Your task to perform on an android device: uninstall "Expedia: Hotels, Flights & Car" Image 0: 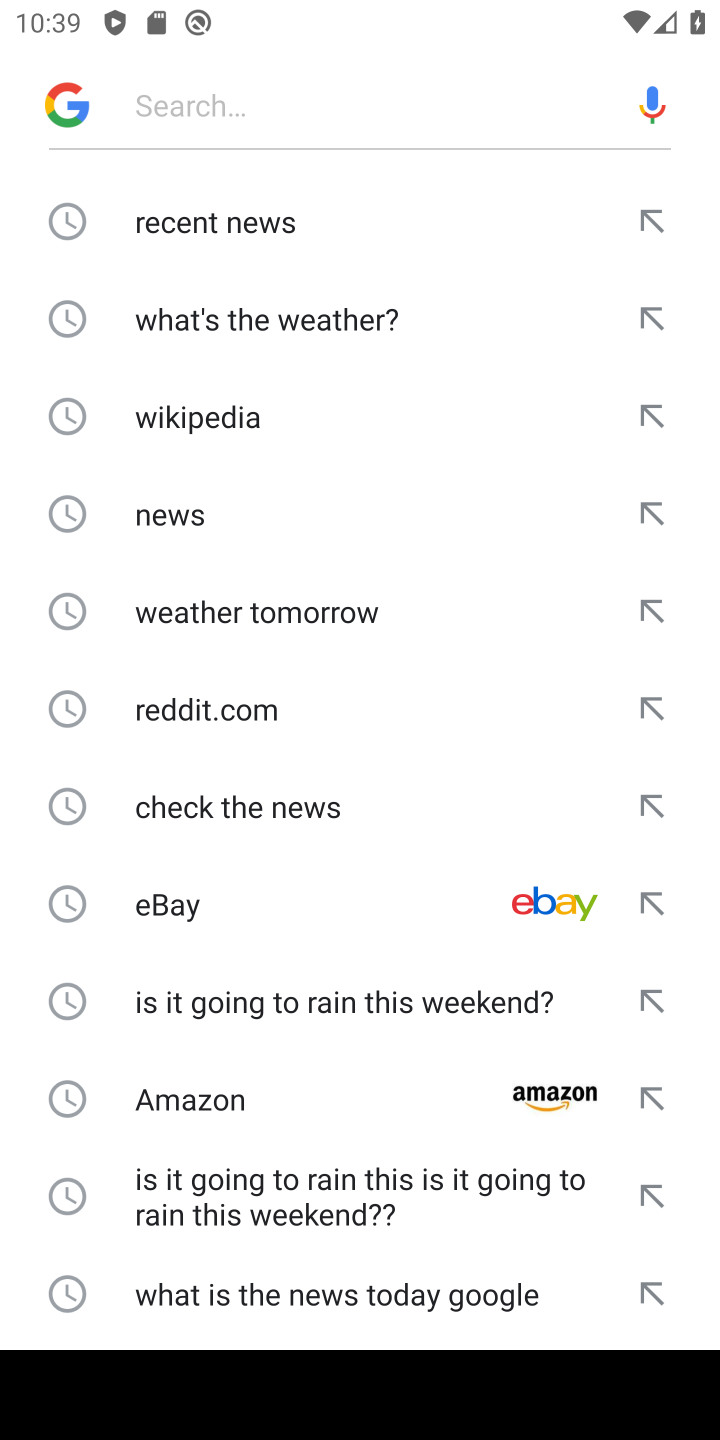
Step 0: press home button
Your task to perform on an android device: uninstall "Expedia: Hotels, Flights & Car" Image 1: 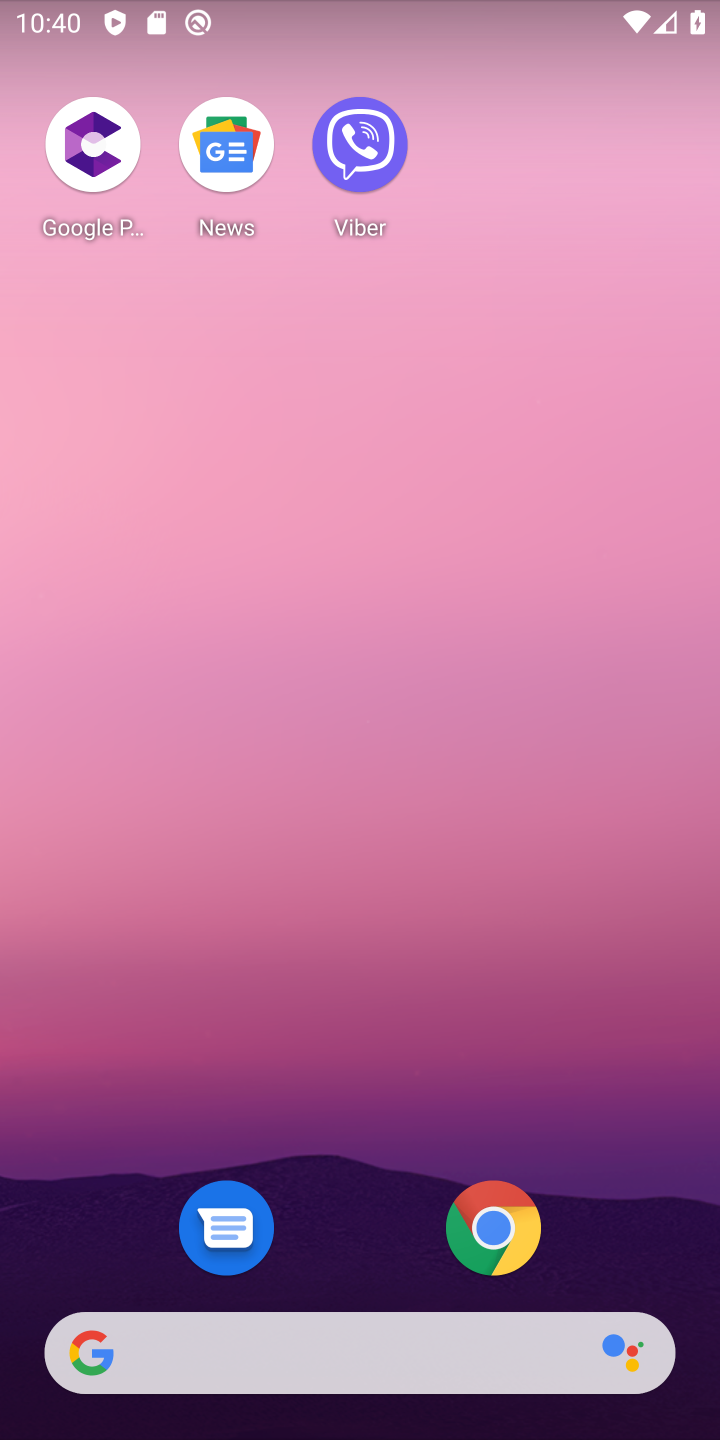
Step 1: click (342, 164)
Your task to perform on an android device: uninstall "Expedia: Hotels, Flights & Car" Image 2: 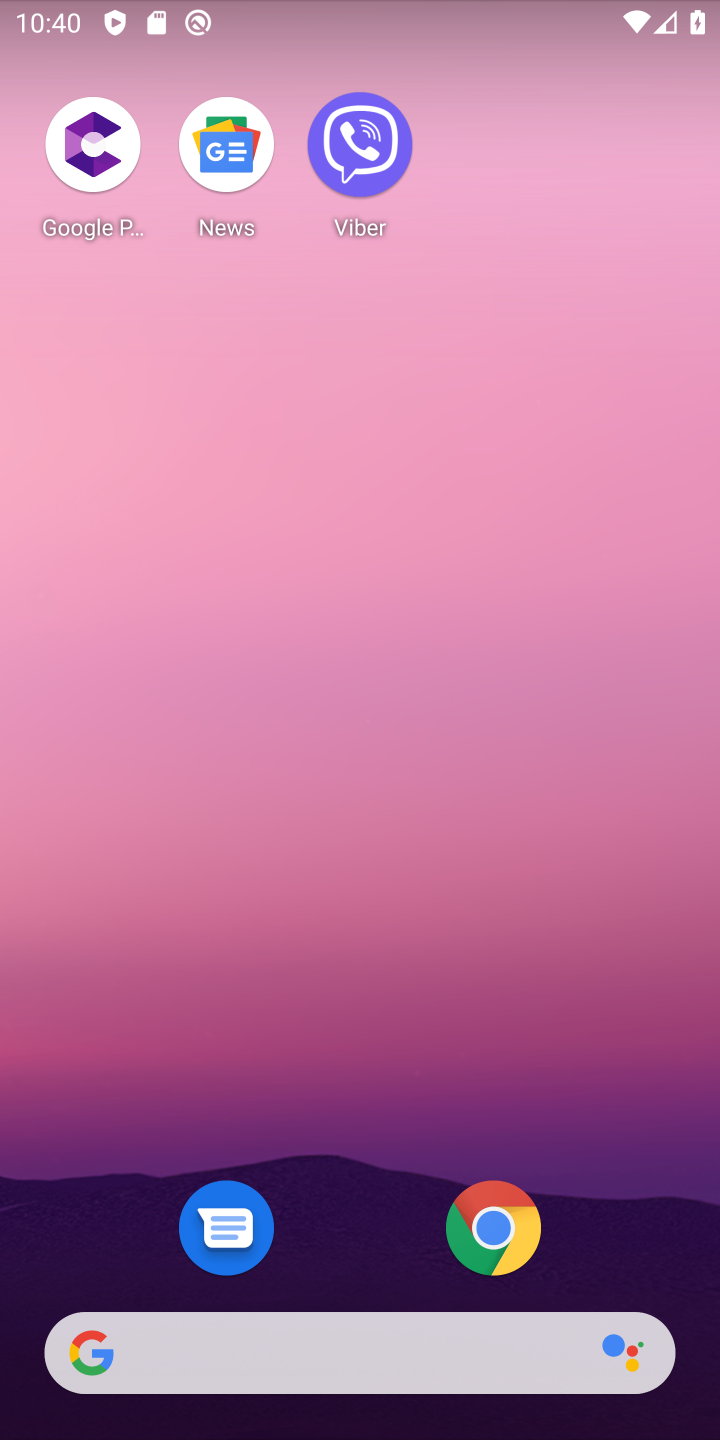
Step 2: drag from (364, 1015) to (364, 385)
Your task to perform on an android device: uninstall "Expedia: Hotels, Flights & Car" Image 3: 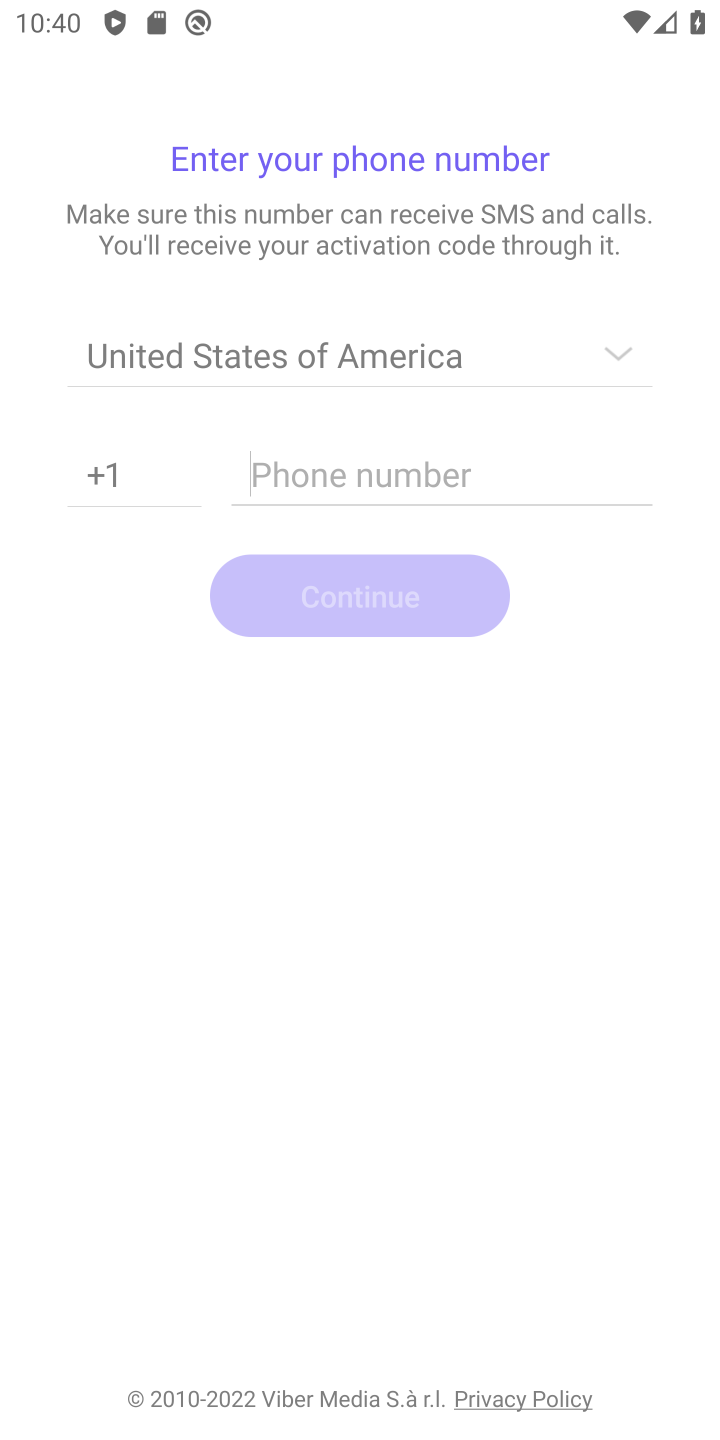
Step 3: press home button
Your task to perform on an android device: uninstall "Expedia: Hotels, Flights & Car" Image 4: 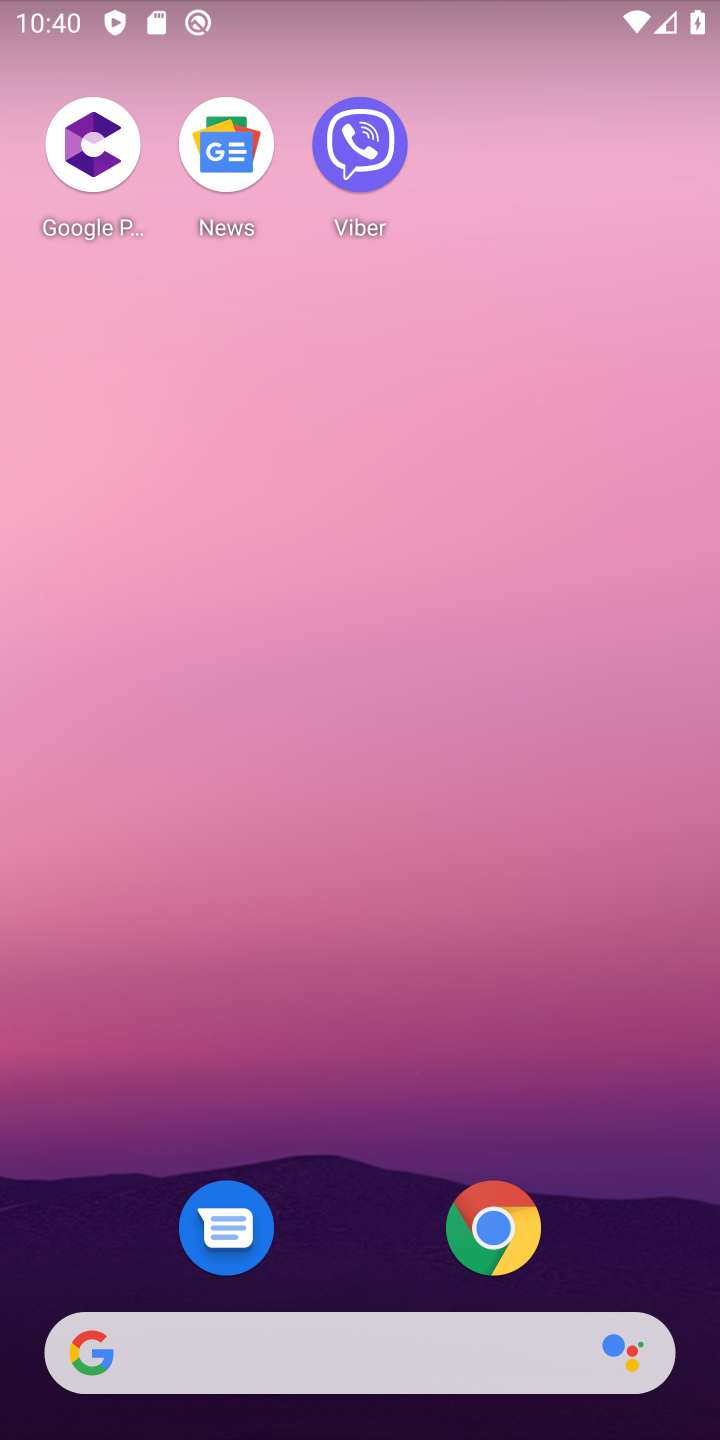
Step 4: drag from (330, 1277) to (346, 259)
Your task to perform on an android device: uninstall "Expedia: Hotels, Flights & Car" Image 5: 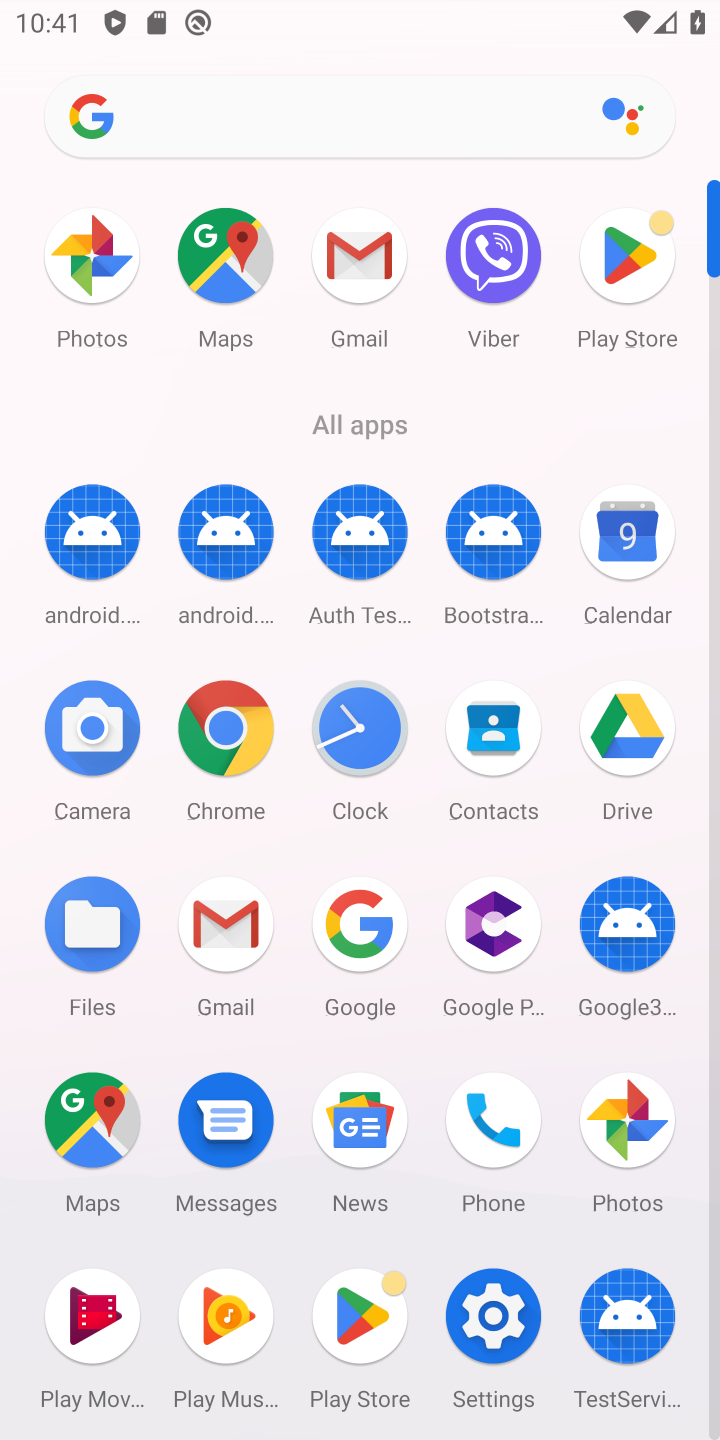
Step 5: click (350, 1317)
Your task to perform on an android device: uninstall "Expedia: Hotels, Flights & Car" Image 6: 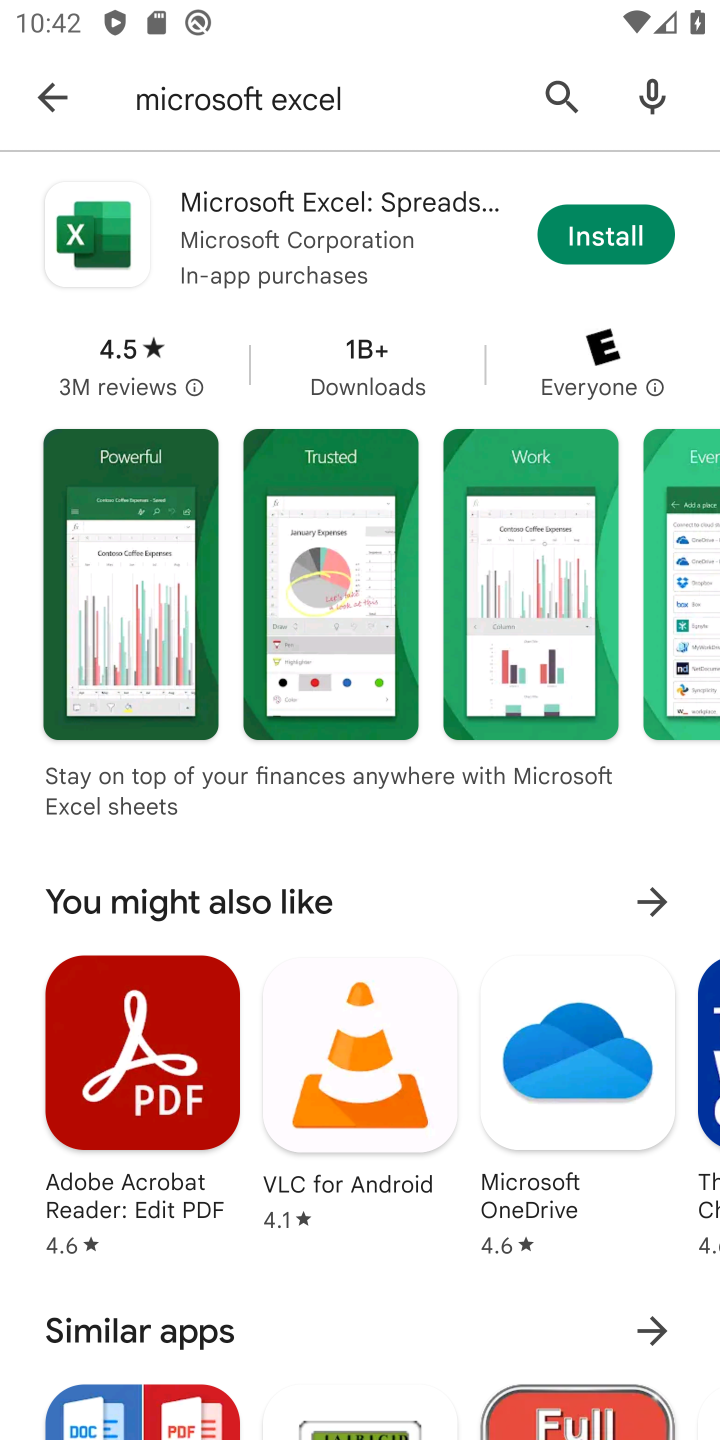
Step 6: click (568, 78)
Your task to perform on an android device: uninstall "Expedia: Hotels, Flights & Car" Image 7: 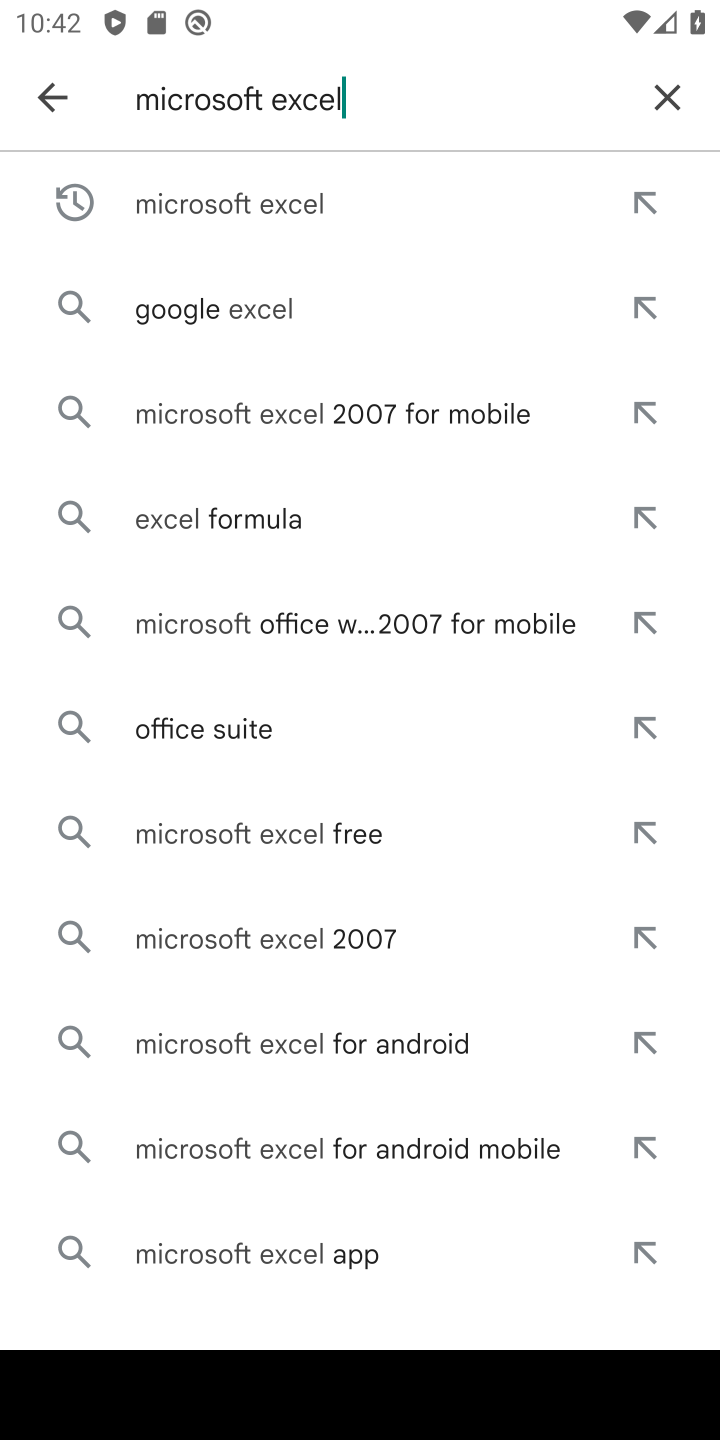
Step 7: click (666, 95)
Your task to perform on an android device: uninstall "Expedia: Hotels, Flights & Car" Image 8: 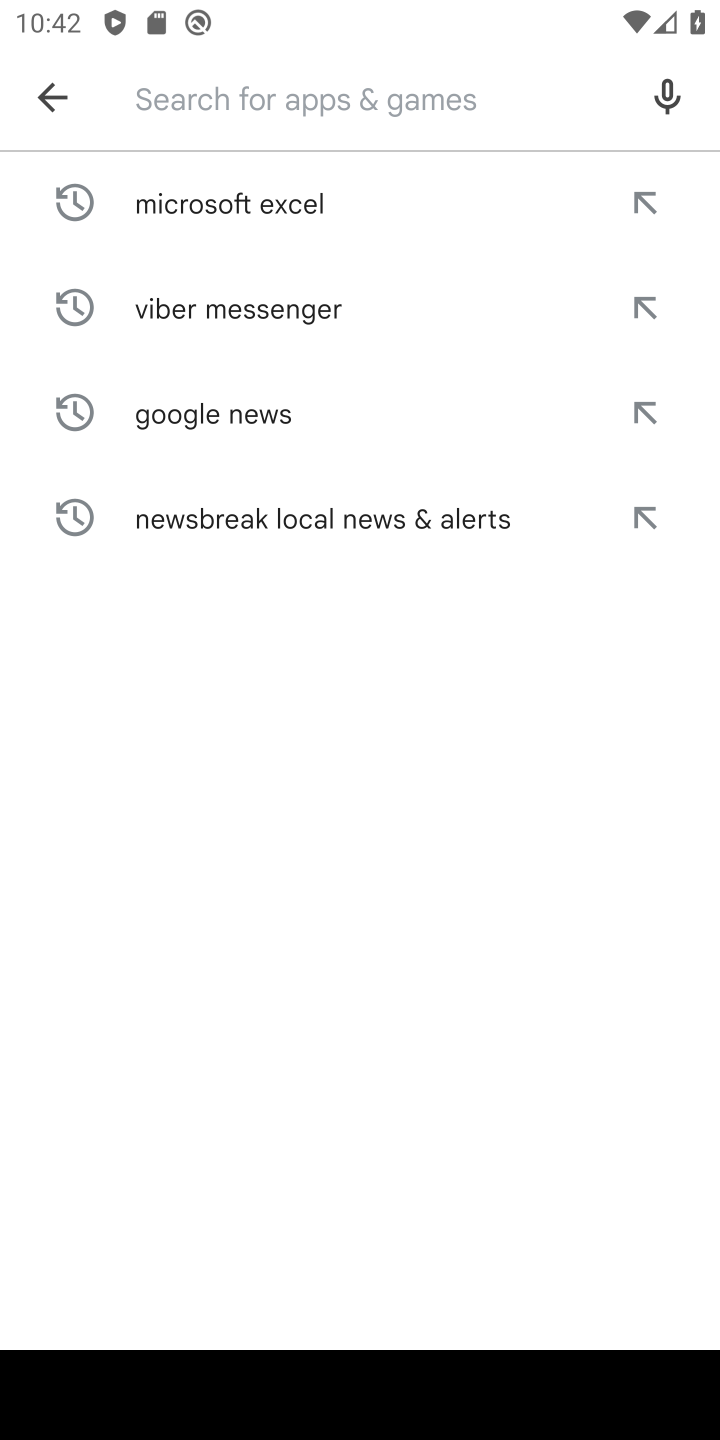
Step 8: type "Expedia: Hotels, Flights & Car"
Your task to perform on an android device: uninstall "Expedia: Hotels, Flights & Car" Image 9: 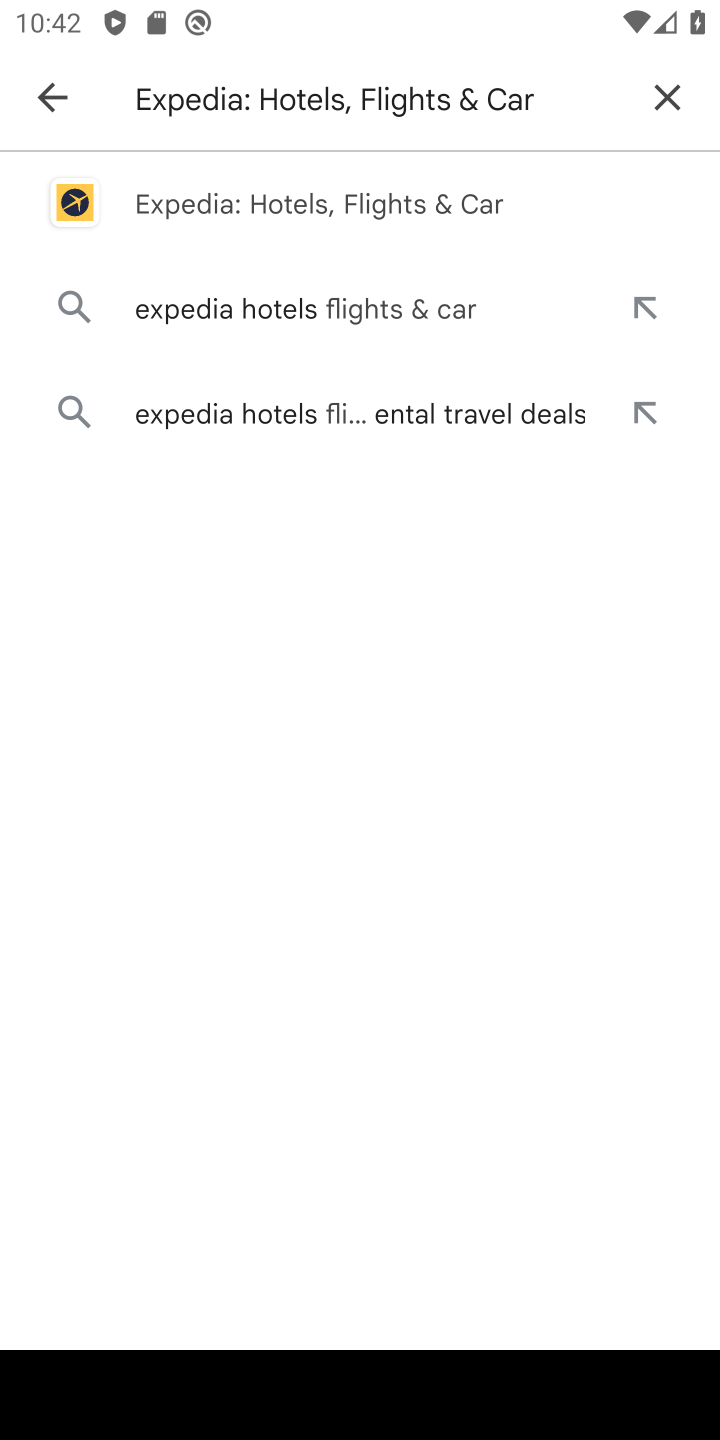
Step 9: click (346, 207)
Your task to perform on an android device: uninstall "Expedia: Hotels, Flights & Car" Image 10: 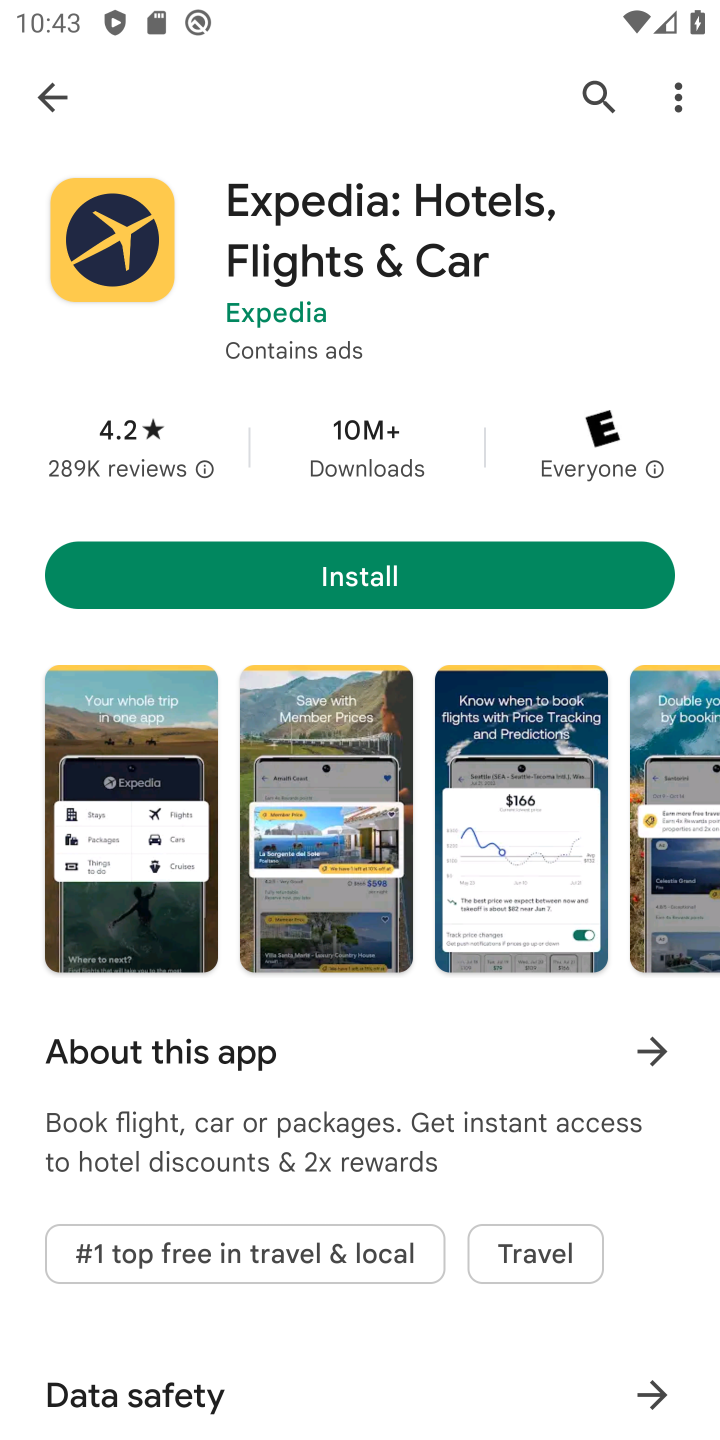
Step 10: task complete